Your task to perform on an android device: Open network settings Image 0: 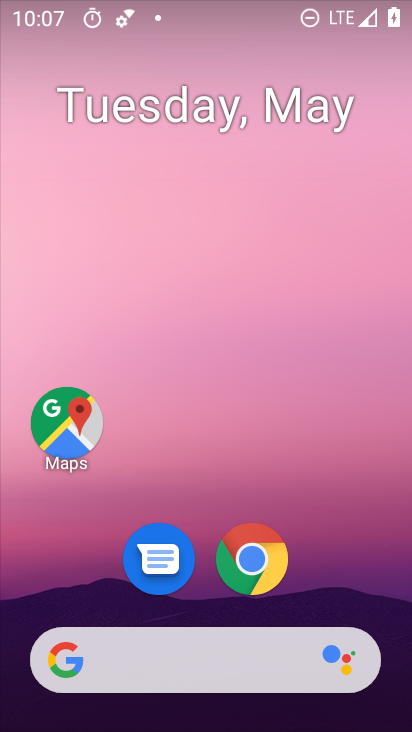
Step 0: drag from (395, 639) to (303, 137)
Your task to perform on an android device: Open network settings Image 1: 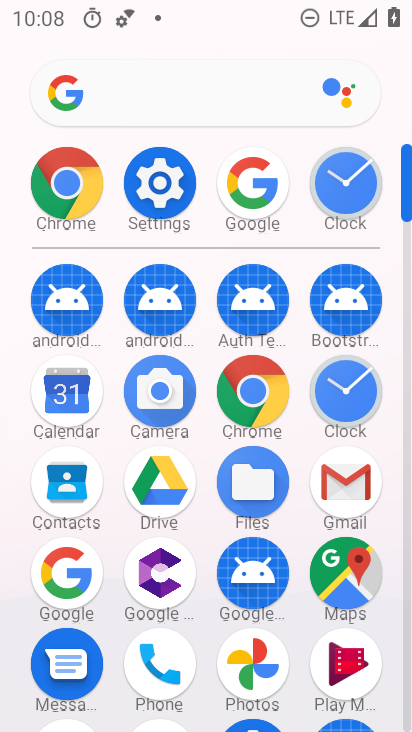
Step 1: click (303, 137)
Your task to perform on an android device: Open network settings Image 2: 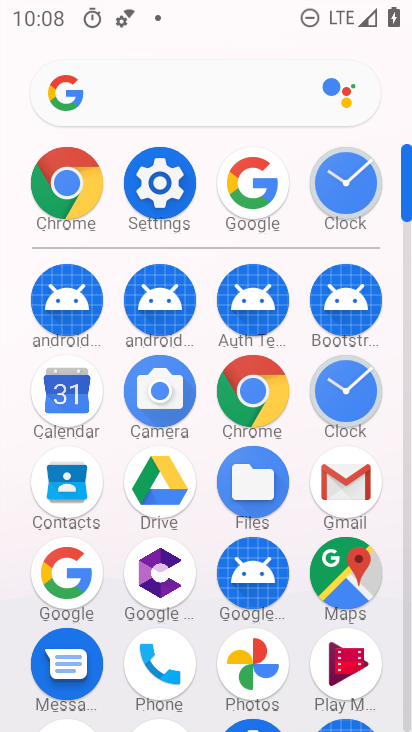
Step 2: click (149, 183)
Your task to perform on an android device: Open network settings Image 3: 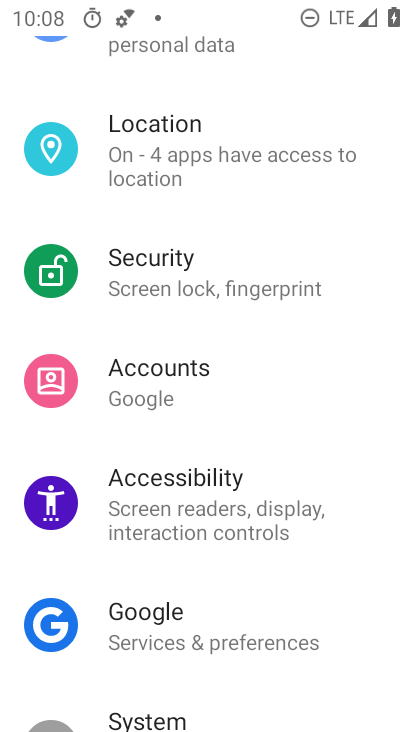
Step 3: drag from (180, 141) to (179, 574)
Your task to perform on an android device: Open network settings Image 4: 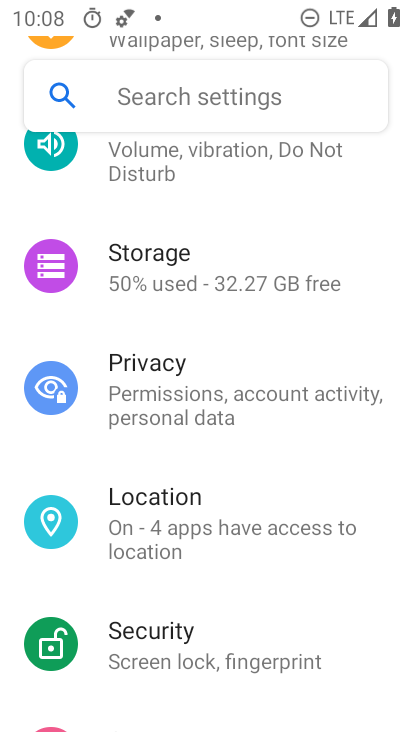
Step 4: drag from (246, 206) to (257, 534)
Your task to perform on an android device: Open network settings Image 5: 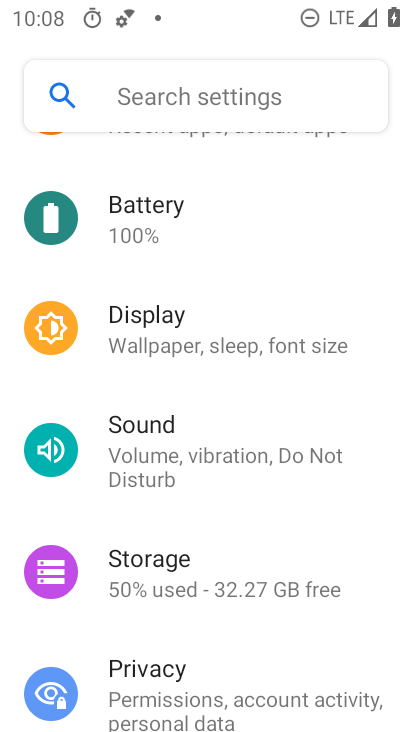
Step 5: drag from (221, 215) to (330, 515)
Your task to perform on an android device: Open network settings Image 6: 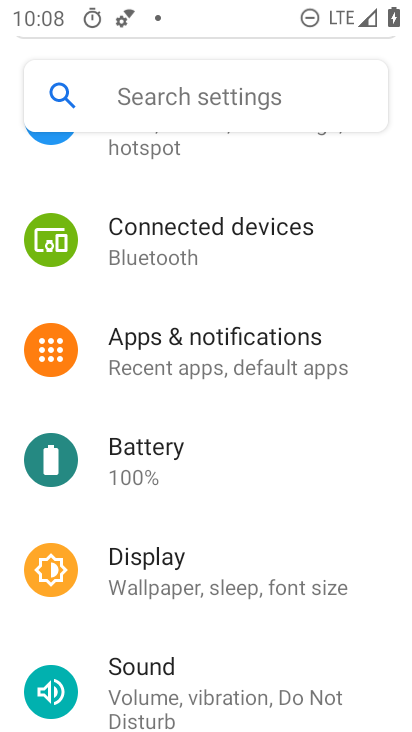
Step 6: drag from (234, 223) to (232, 686)
Your task to perform on an android device: Open network settings Image 7: 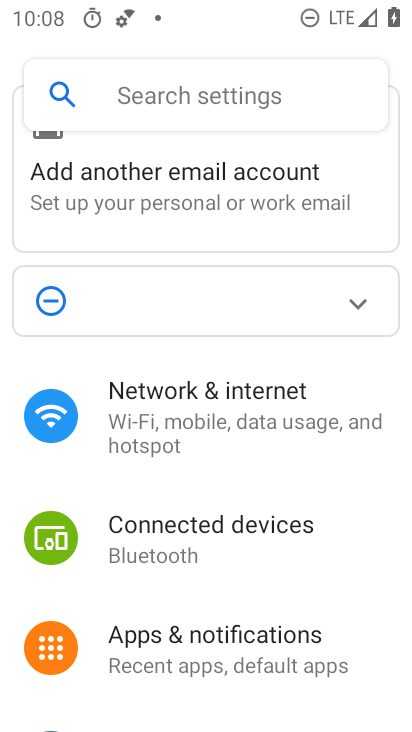
Step 7: click (239, 399)
Your task to perform on an android device: Open network settings Image 8: 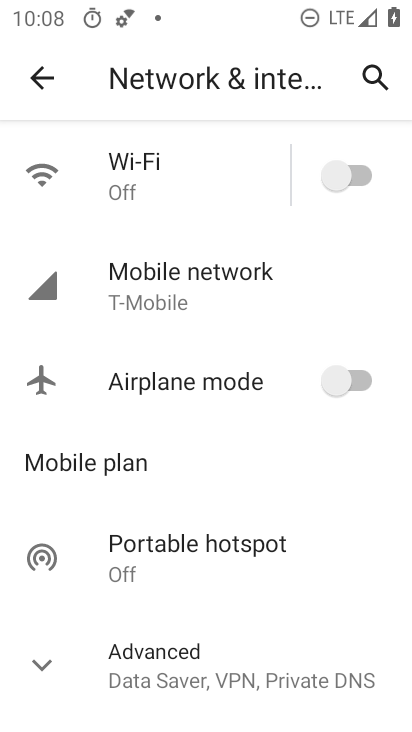
Step 8: task complete